Your task to perform on an android device: check the backup settings in the google photos Image 0: 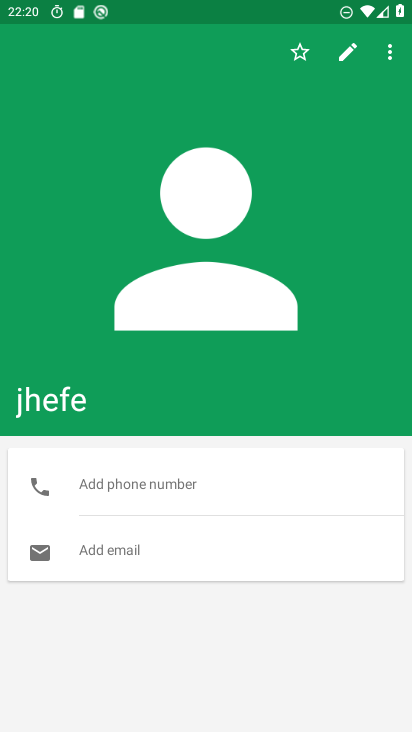
Step 0: press home button
Your task to perform on an android device: check the backup settings in the google photos Image 1: 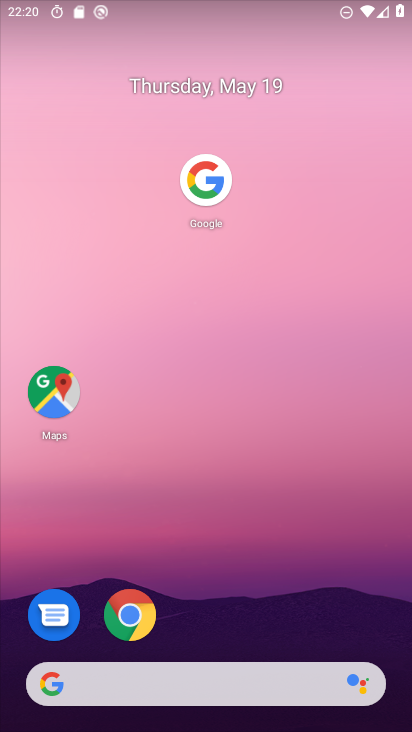
Step 1: drag from (241, 580) to (210, 60)
Your task to perform on an android device: check the backup settings in the google photos Image 2: 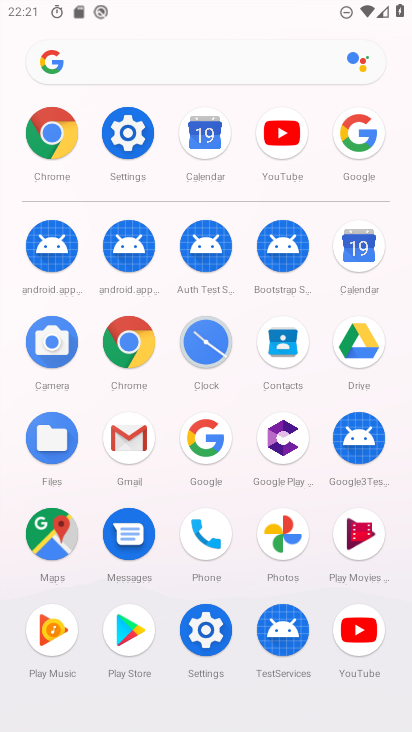
Step 2: click (283, 531)
Your task to perform on an android device: check the backup settings in the google photos Image 3: 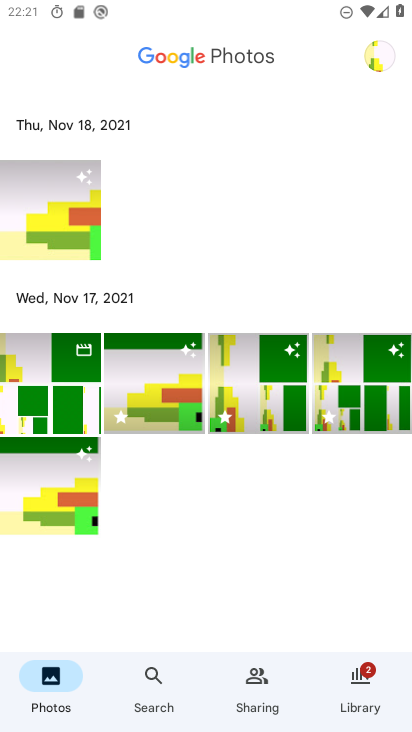
Step 3: click (378, 48)
Your task to perform on an android device: check the backup settings in the google photos Image 4: 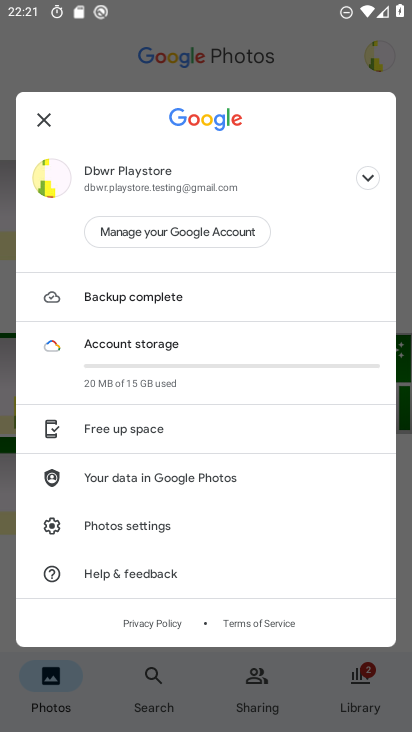
Step 4: click (122, 515)
Your task to perform on an android device: check the backup settings in the google photos Image 5: 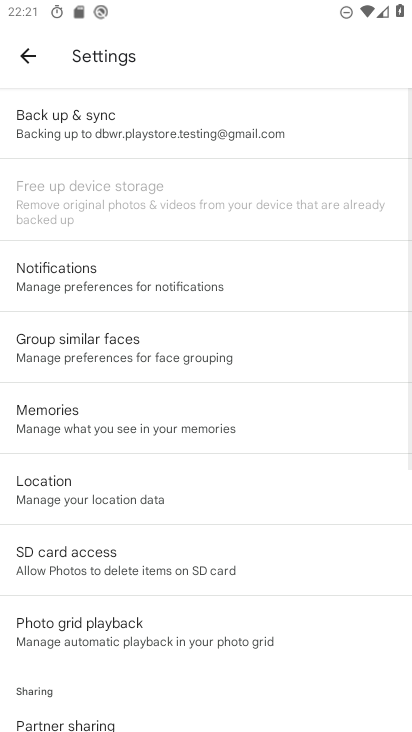
Step 5: click (106, 112)
Your task to perform on an android device: check the backup settings in the google photos Image 6: 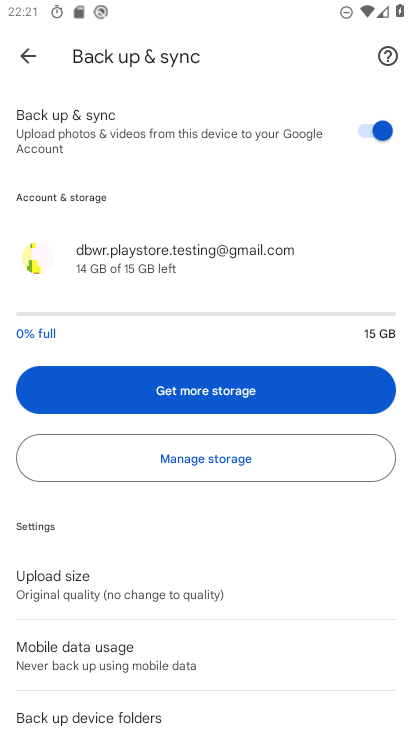
Step 6: task complete